Your task to perform on an android device: toggle pop-ups in chrome Image 0: 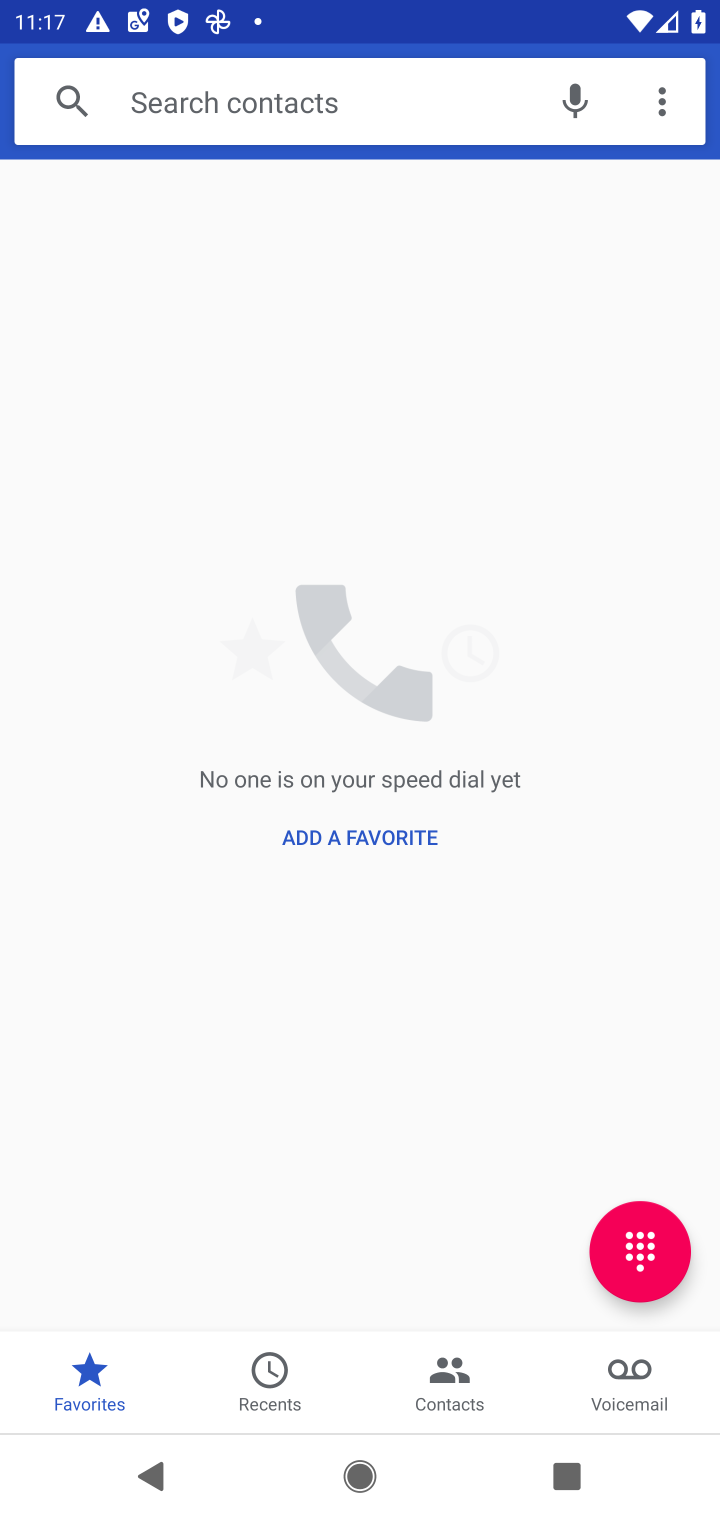
Step 0: press home button
Your task to perform on an android device: toggle pop-ups in chrome Image 1: 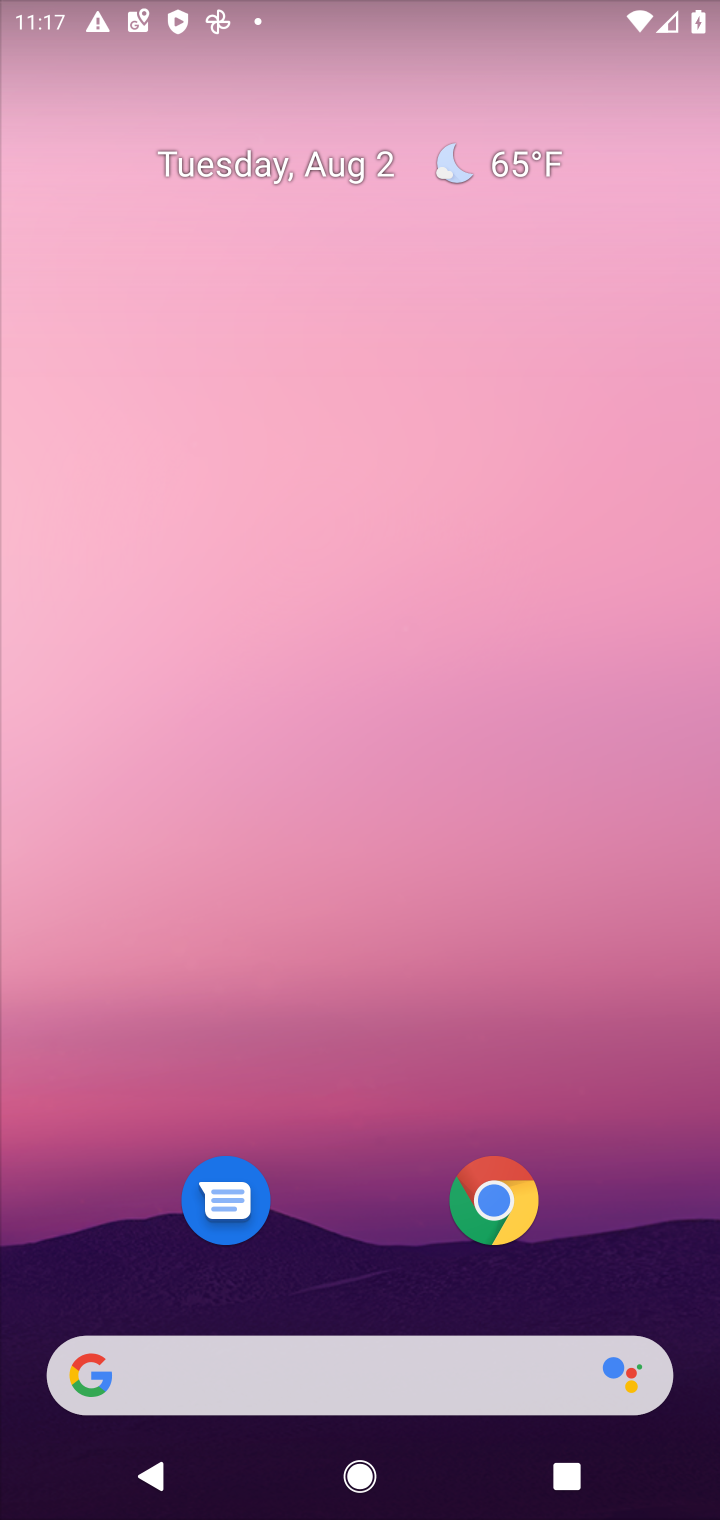
Step 1: click (489, 1187)
Your task to perform on an android device: toggle pop-ups in chrome Image 2: 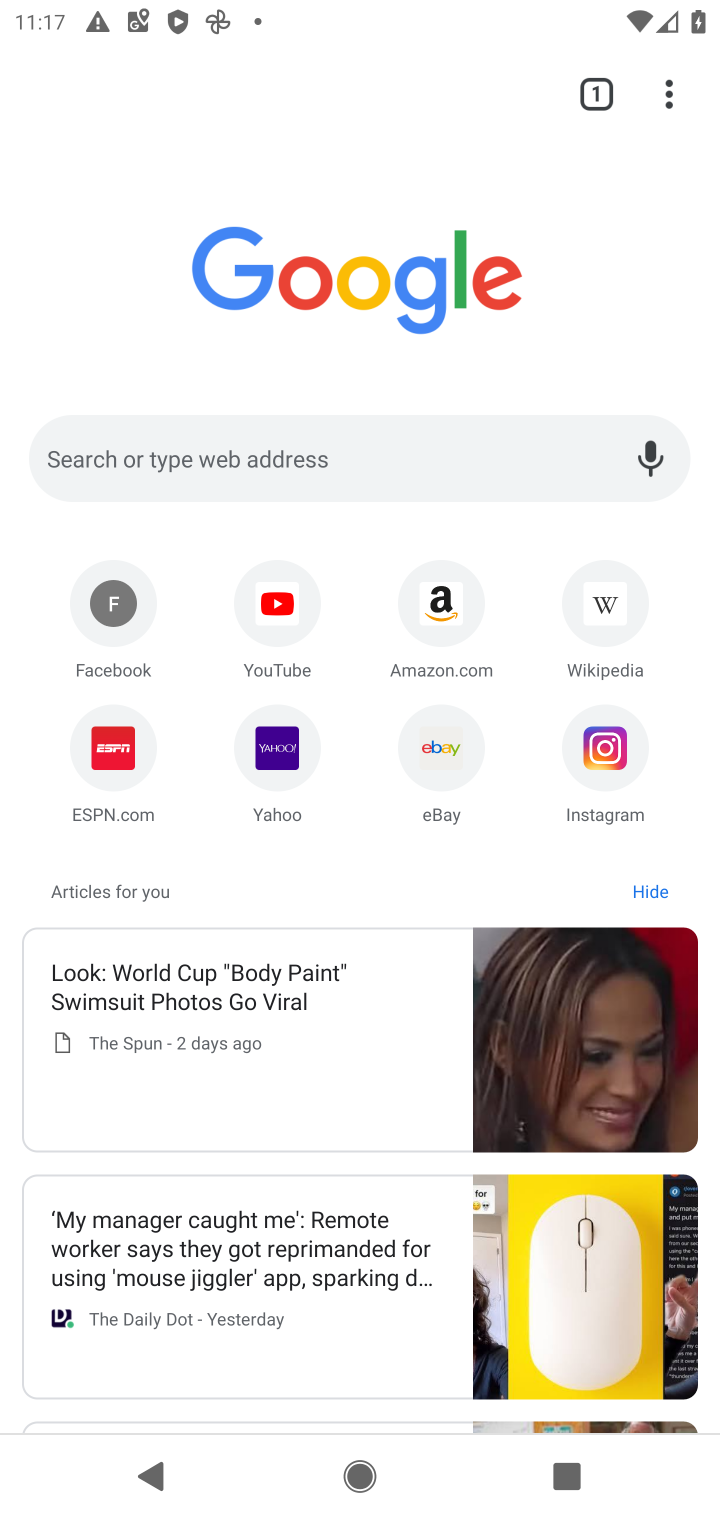
Step 2: click (664, 107)
Your task to perform on an android device: toggle pop-ups in chrome Image 3: 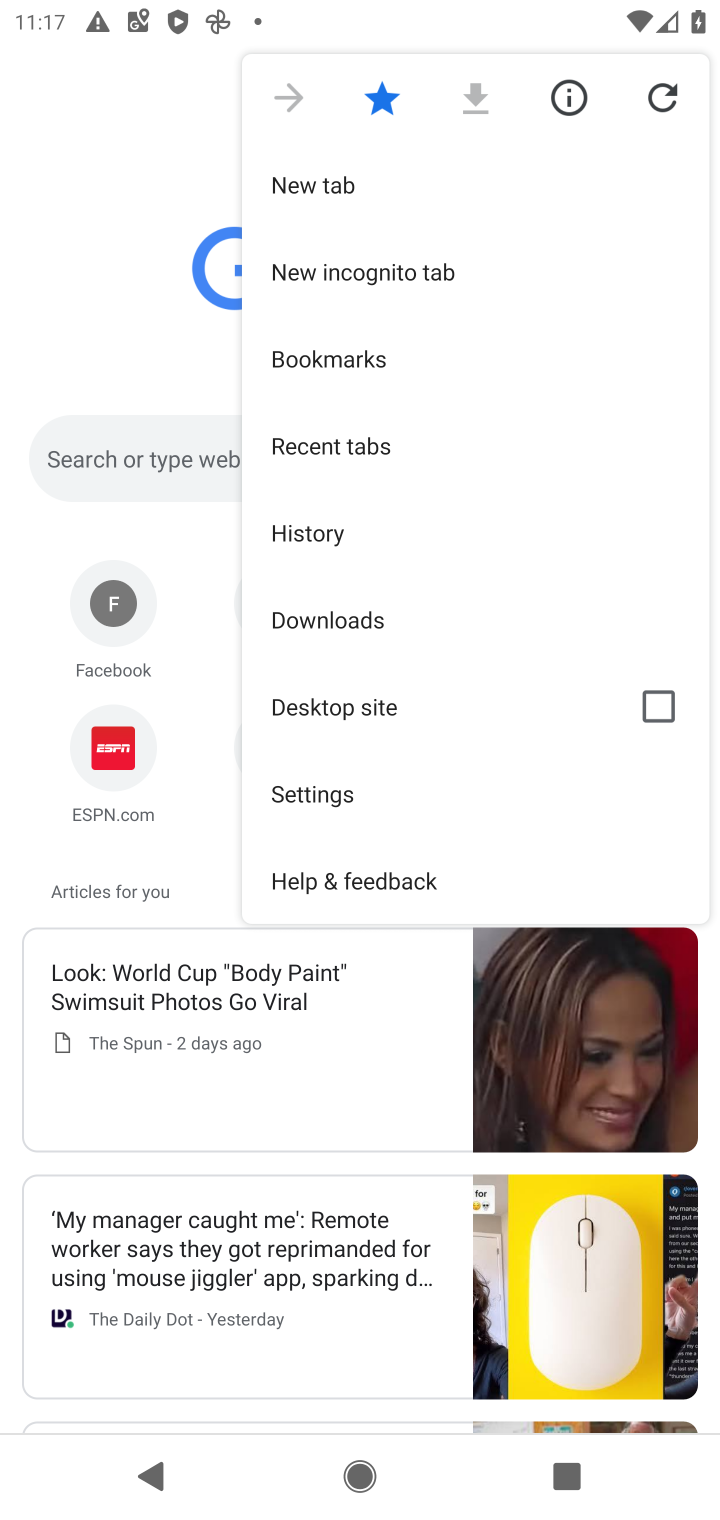
Step 3: click (310, 800)
Your task to perform on an android device: toggle pop-ups in chrome Image 4: 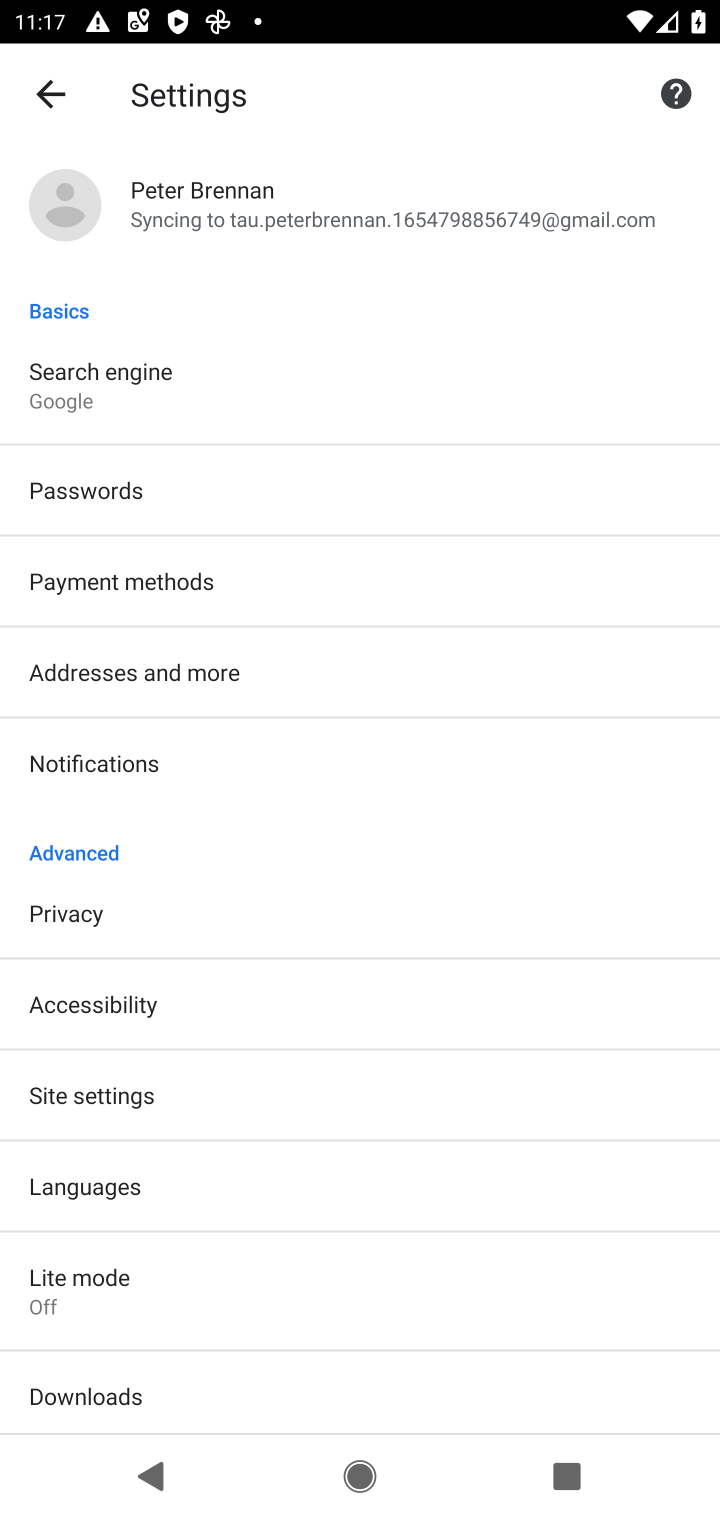
Step 4: click (104, 1093)
Your task to perform on an android device: toggle pop-ups in chrome Image 5: 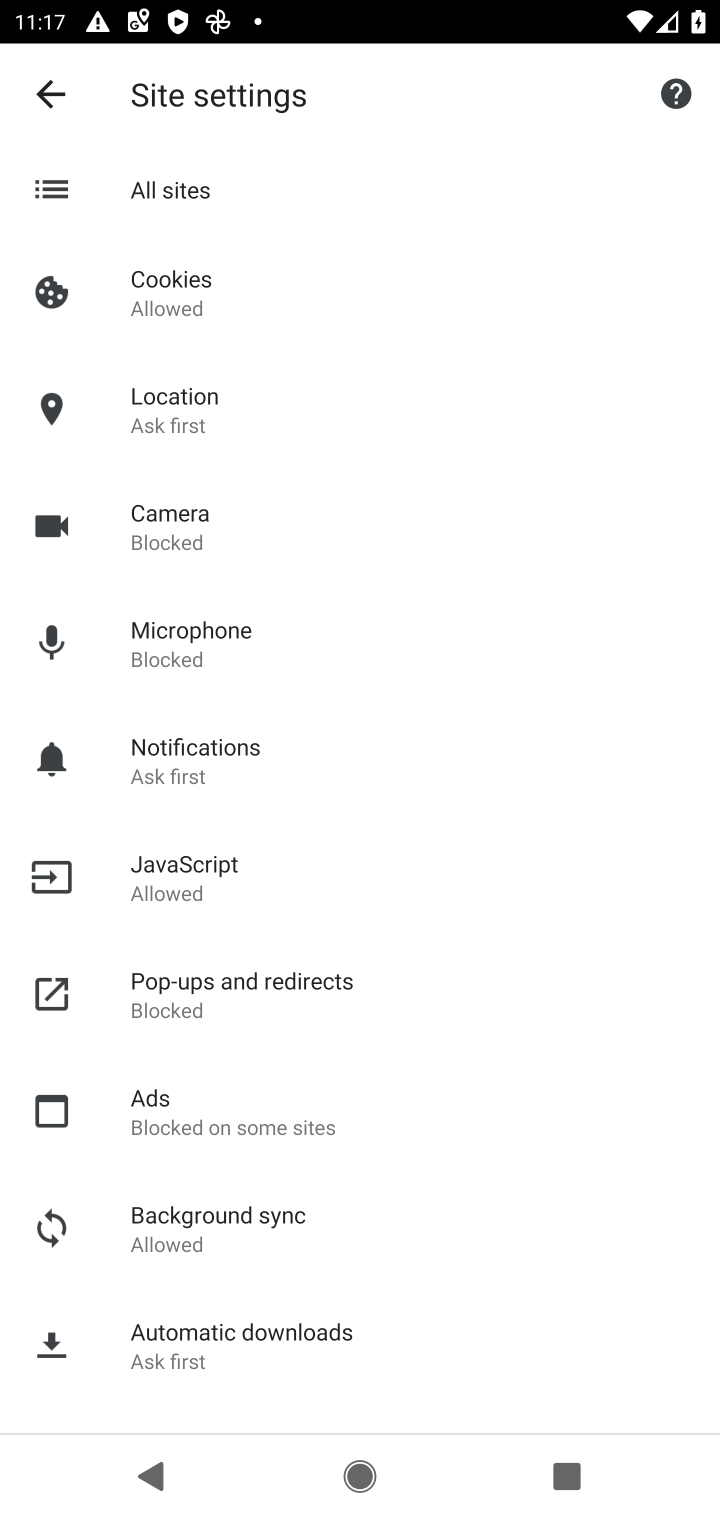
Step 5: click (141, 1008)
Your task to perform on an android device: toggle pop-ups in chrome Image 6: 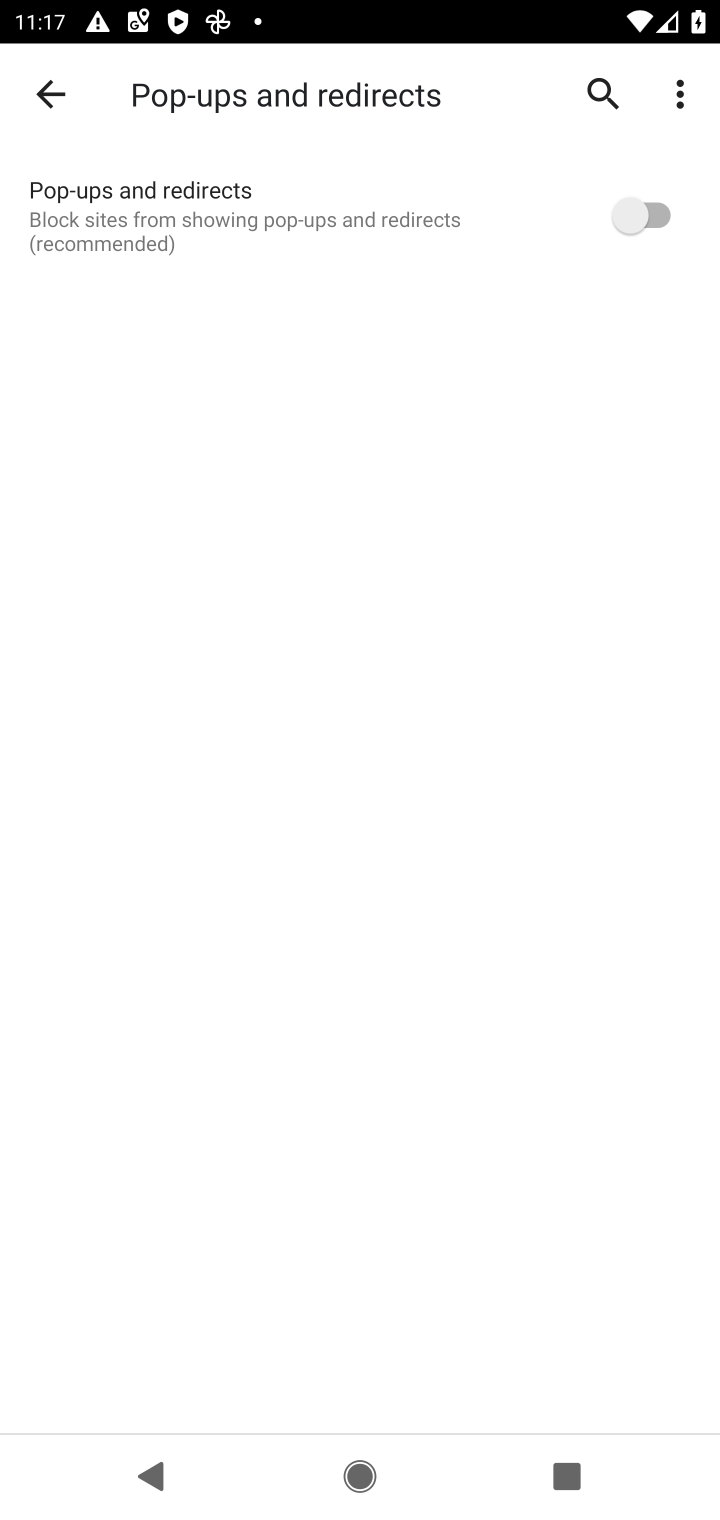
Step 6: click (666, 210)
Your task to perform on an android device: toggle pop-ups in chrome Image 7: 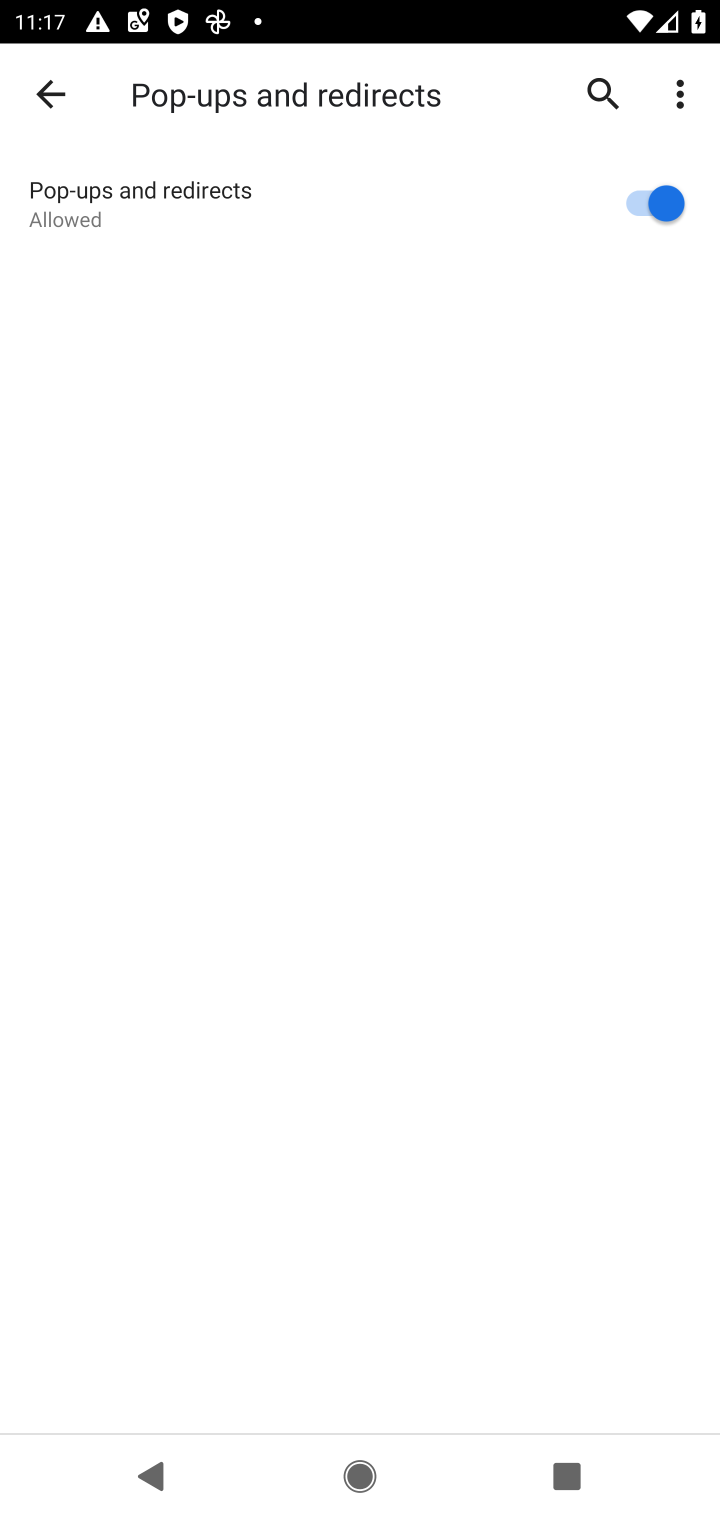
Step 7: task complete